Your task to perform on an android device: open app "Pandora - Music & Podcasts" (install if not already installed) Image 0: 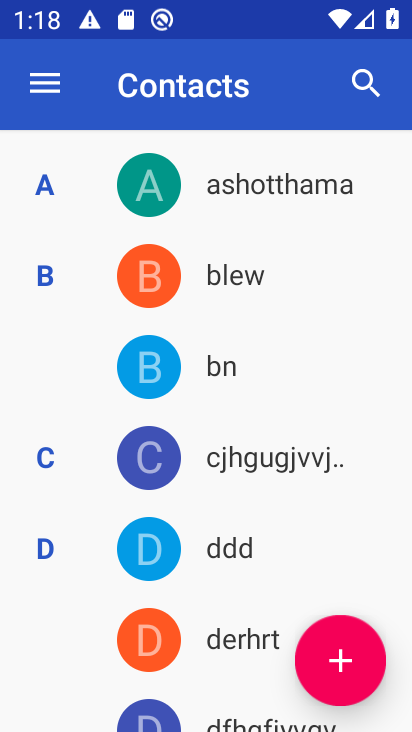
Step 0: press home button
Your task to perform on an android device: open app "Pandora - Music & Podcasts" (install if not already installed) Image 1: 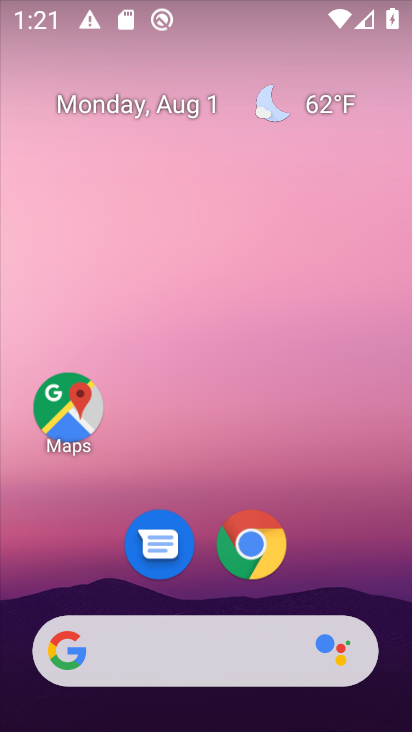
Step 1: drag from (387, 600) to (234, 0)
Your task to perform on an android device: open app "Pandora - Music & Podcasts" (install if not already installed) Image 2: 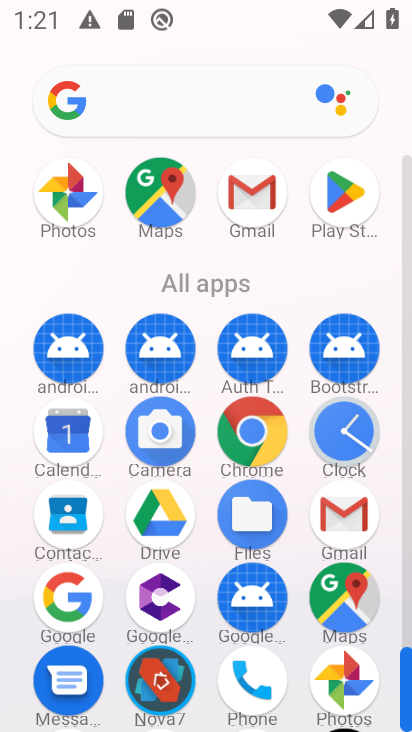
Step 2: click (341, 192)
Your task to perform on an android device: open app "Pandora - Music & Podcasts" (install if not already installed) Image 3: 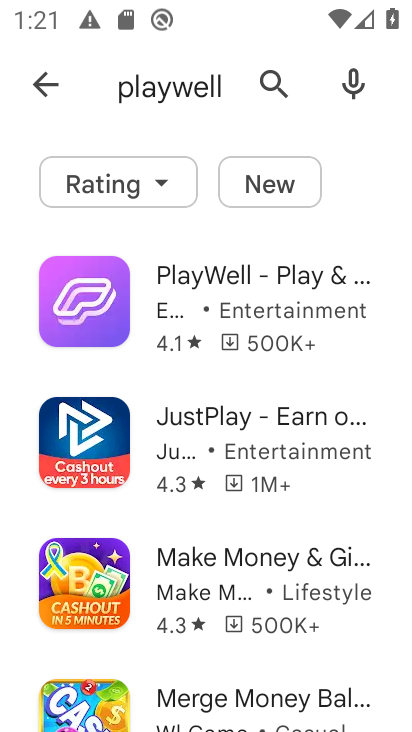
Step 3: press back button
Your task to perform on an android device: open app "Pandora - Music & Podcasts" (install if not already installed) Image 4: 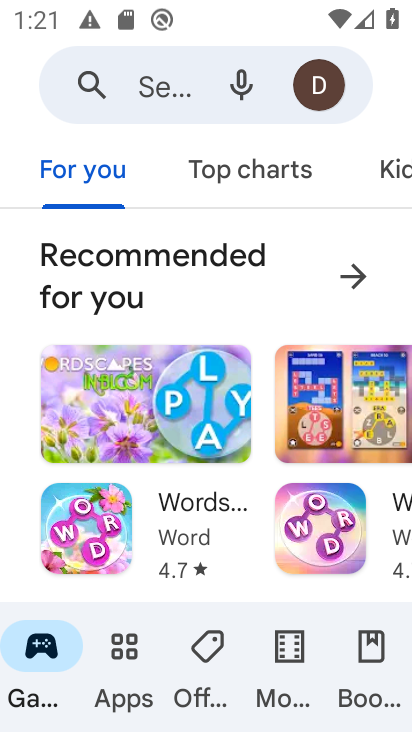
Step 4: click (156, 89)
Your task to perform on an android device: open app "Pandora - Music & Podcasts" (install if not already installed) Image 5: 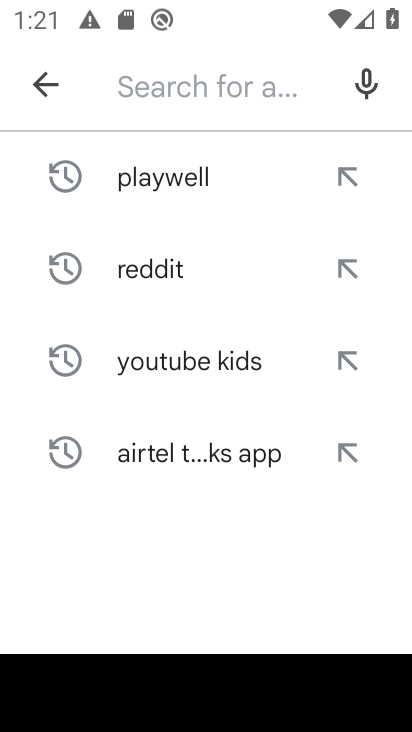
Step 5: type "Pandora - Music & Podcasts"
Your task to perform on an android device: open app "Pandora - Music & Podcasts" (install if not already installed) Image 6: 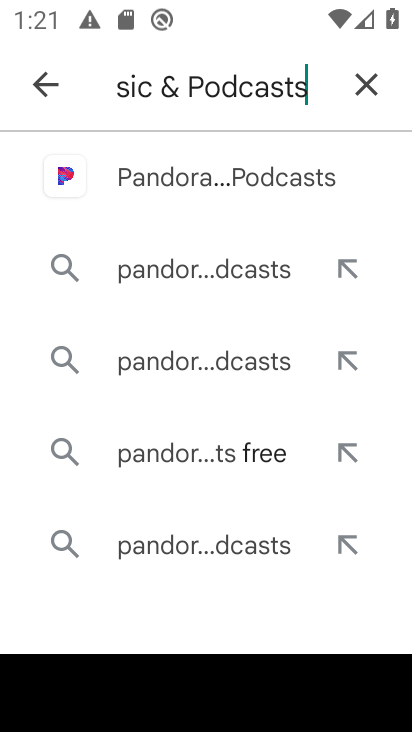
Step 6: click (148, 181)
Your task to perform on an android device: open app "Pandora - Music & Podcasts" (install if not already installed) Image 7: 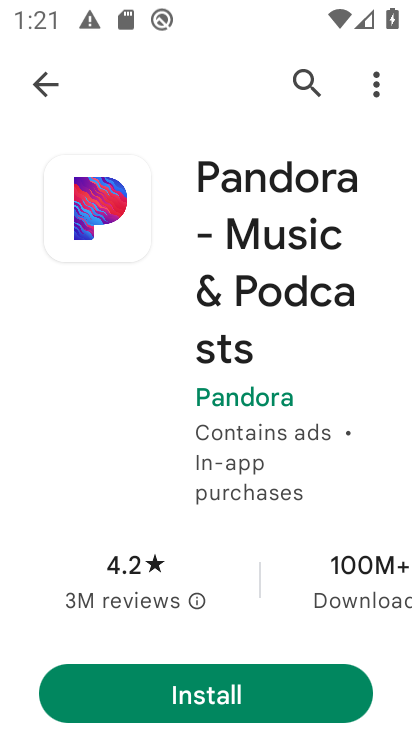
Step 7: task complete